Your task to perform on an android device: Go to network settings Image 0: 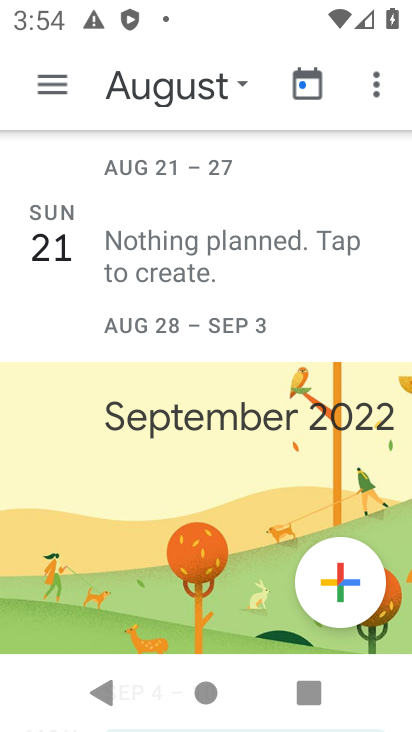
Step 0: press home button
Your task to perform on an android device: Go to network settings Image 1: 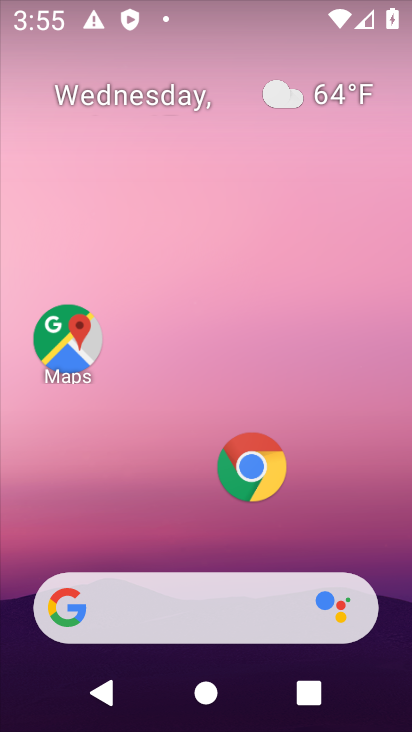
Step 1: drag from (196, 532) to (233, 246)
Your task to perform on an android device: Go to network settings Image 2: 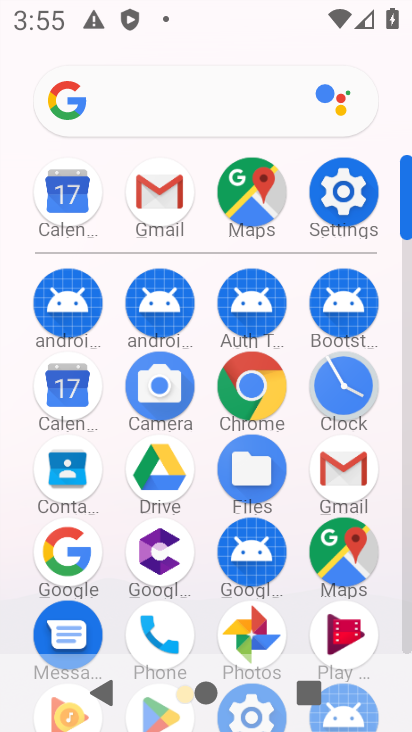
Step 2: click (341, 199)
Your task to perform on an android device: Go to network settings Image 3: 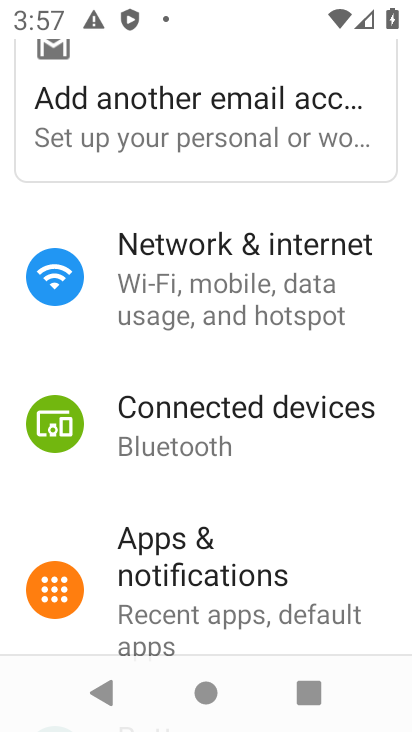
Step 3: task complete